Your task to perform on an android device: set default search engine in the chrome app Image 0: 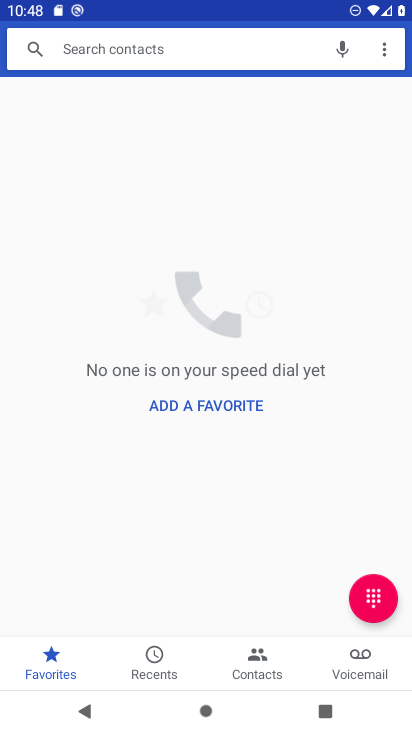
Step 0: press home button
Your task to perform on an android device: set default search engine in the chrome app Image 1: 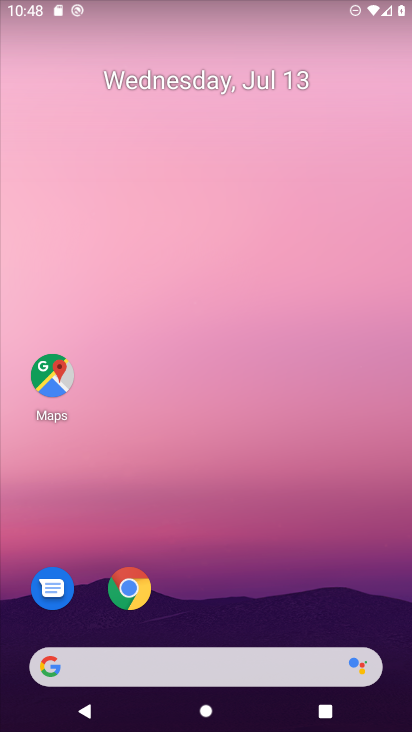
Step 1: click (139, 594)
Your task to perform on an android device: set default search engine in the chrome app Image 2: 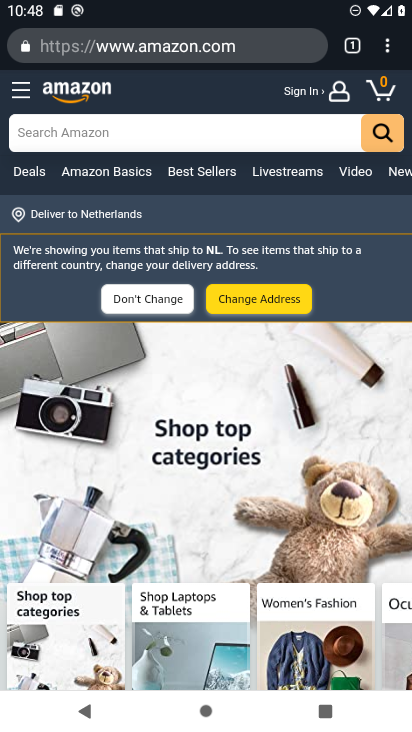
Step 2: click (388, 53)
Your task to perform on an android device: set default search engine in the chrome app Image 3: 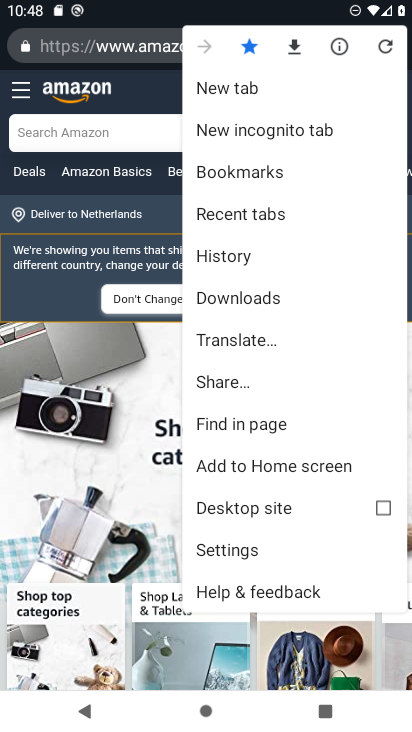
Step 3: click (236, 551)
Your task to perform on an android device: set default search engine in the chrome app Image 4: 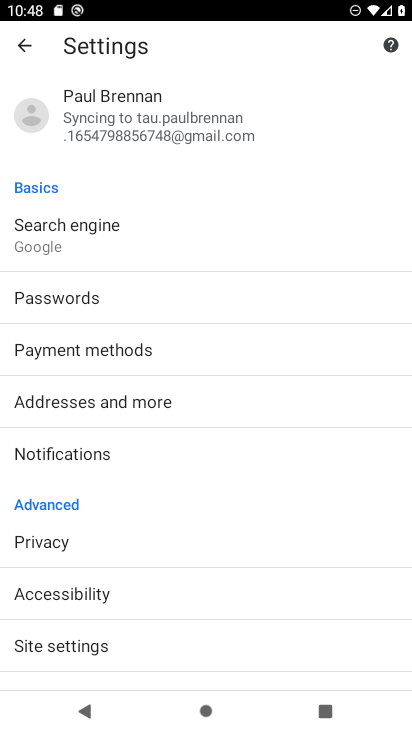
Step 4: click (78, 244)
Your task to perform on an android device: set default search engine in the chrome app Image 5: 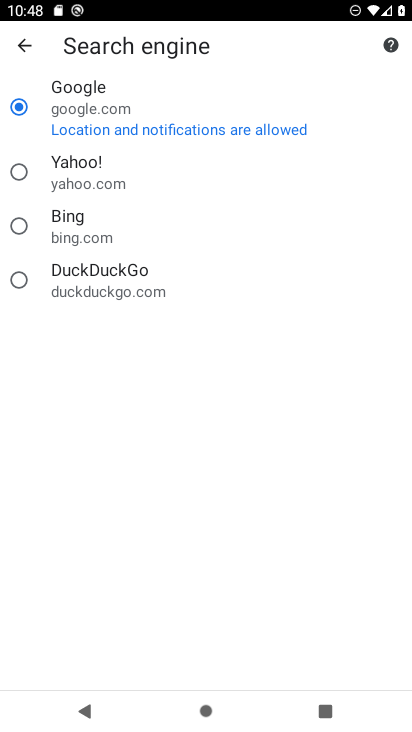
Step 5: click (165, 130)
Your task to perform on an android device: set default search engine in the chrome app Image 6: 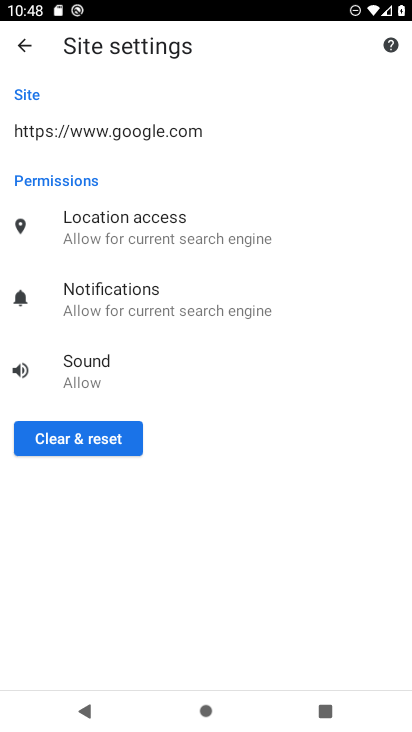
Step 6: click (76, 440)
Your task to perform on an android device: set default search engine in the chrome app Image 7: 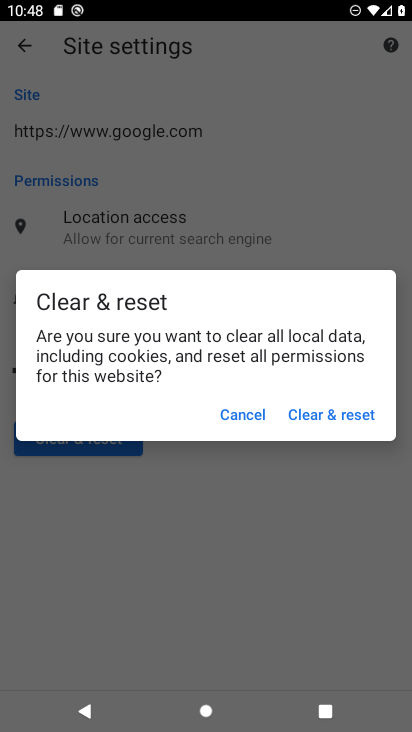
Step 7: click (351, 422)
Your task to perform on an android device: set default search engine in the chrome app Image 8: 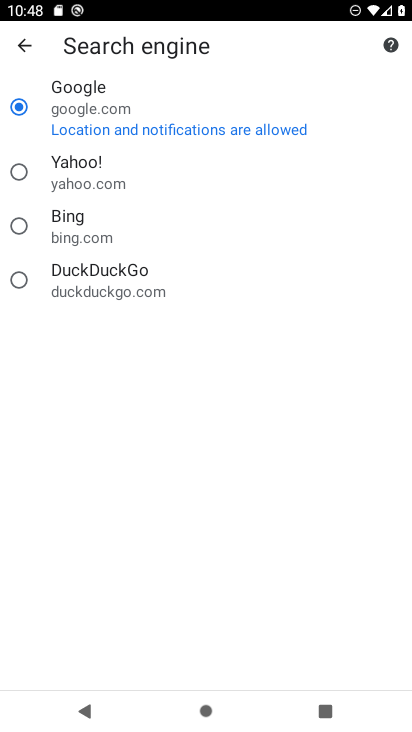
Step 8: task complete